Your task to perform on an android device: Go to network settings Image 0: 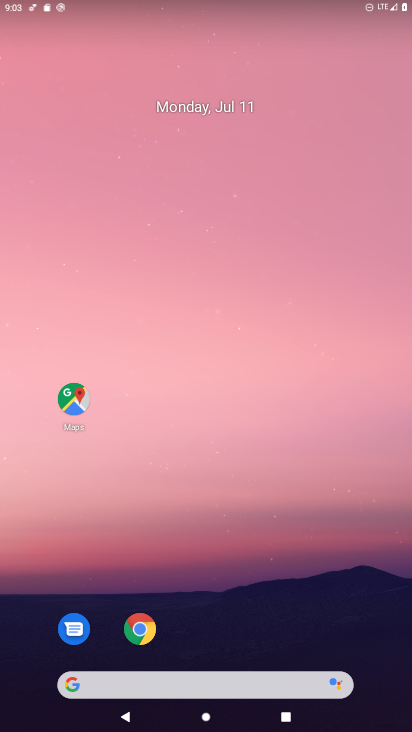
Step 0: drag from (278, 7) to (259, 682)
Your task to perform on an android device: Go to network settings Image 1: 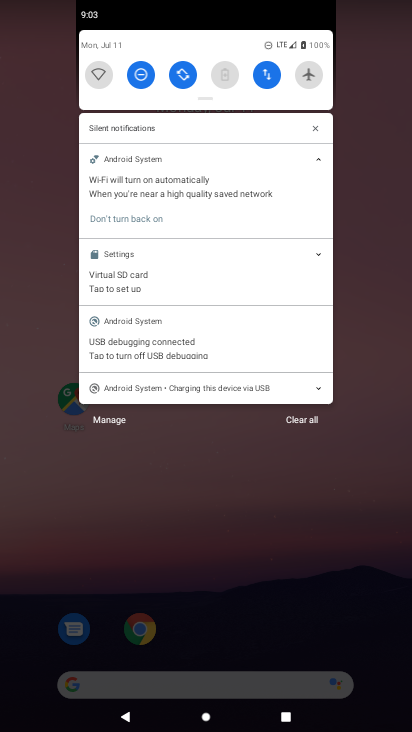
Step 1: click (270, 83)
Your task to perform on an android device: Go to network settings Image 2: 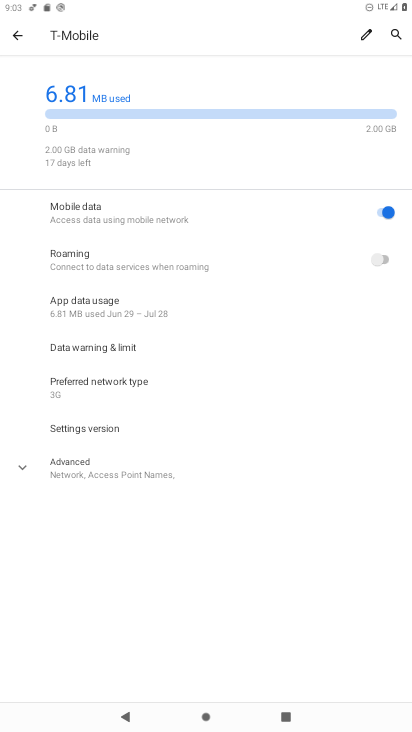
Step 2: task complete